Your task to perform on an android device: delete browsing data in the chrome app Image 0: 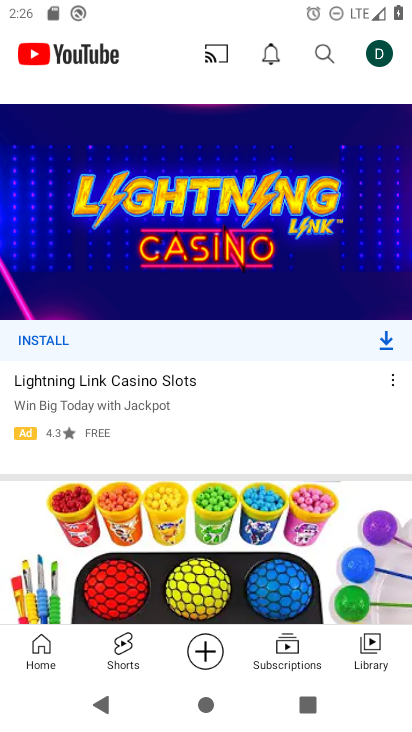
Step 0: press home button
Your task to perform on an android device: delete browsing data in the chrome app Image 1: 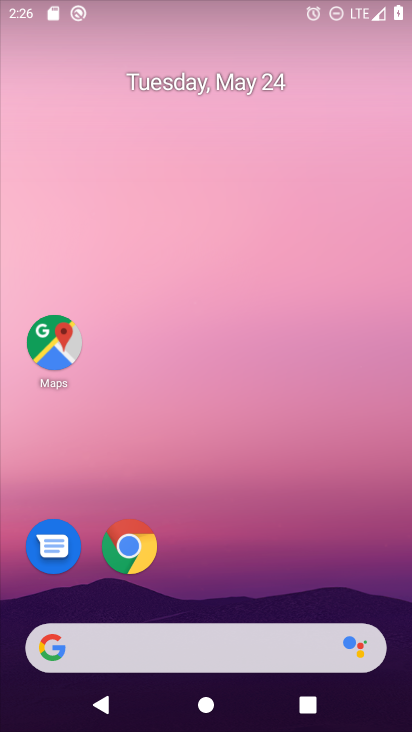
Step 1: drag from (342, 630) to (328, 14)
Your task to perform on an android device: delete browsing data in the chrome app Image 2: 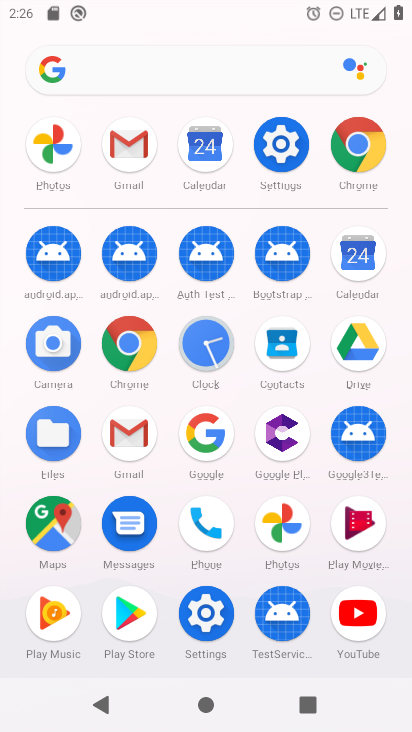
Step 2: click (126, 346)
Your task to perform on an android device: delete browsing data in the chrome app Image 3: 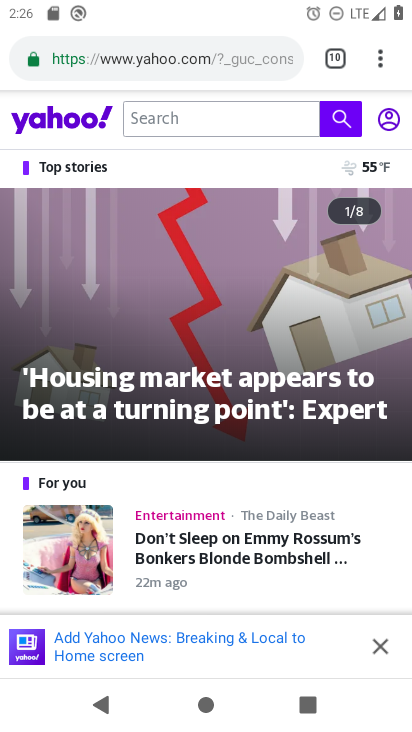
Step 3: click (379, 55)
Your task to perform on an android device: delete browsing data in the chrome app Image 4: 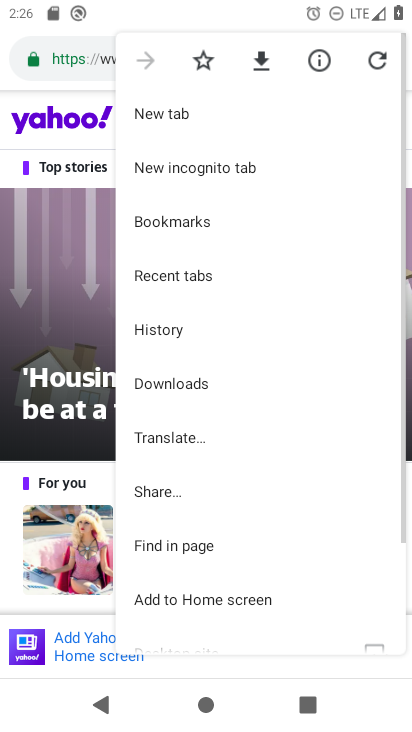
Step 4: click (177, 335)
Your task to perform on an android device: delete browsing data in the chrome app Image 5: 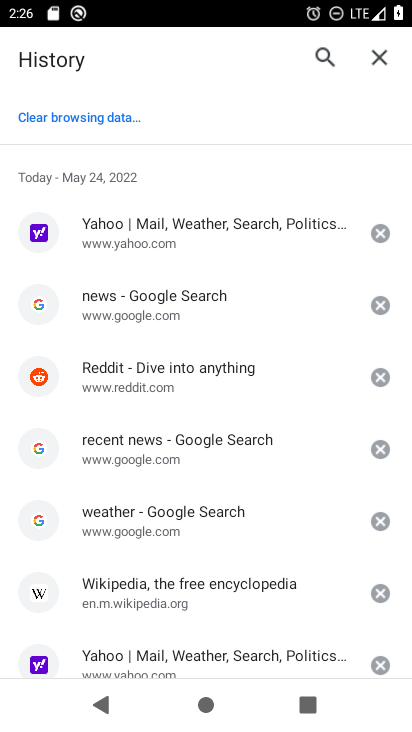
Step 5: click (104, 112)
Your task to perform on an android device: delete browsing data in the chrome app Image 6: 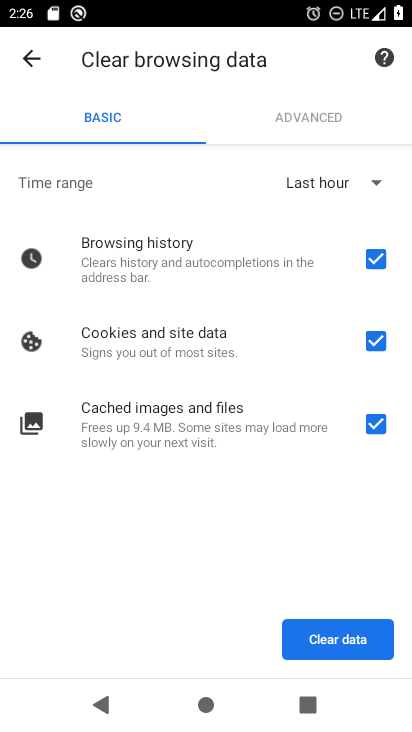
Step 6: click (342, 629)
Your task to perform on an android device: delete browsing data in the chrome app Image 7: 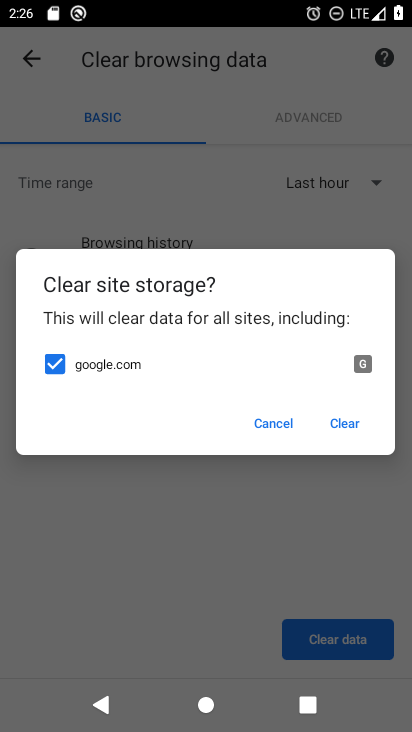
Step 7: click (344, 418)
Your task to perform on an android device: delete browsing data in the chrome app Image 8: 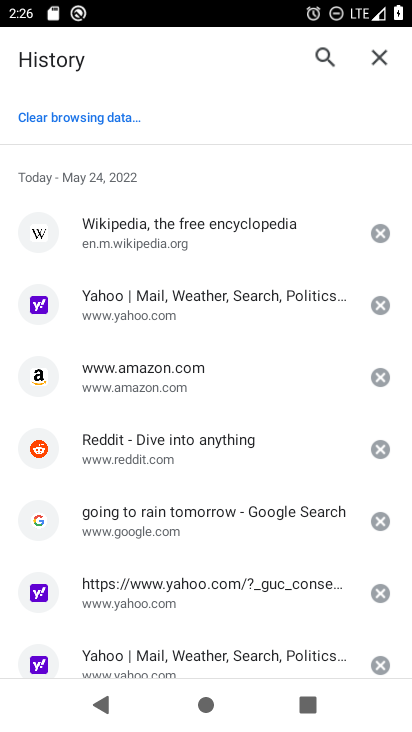
Step 8: click (381, 231)
Your task to perform on an android device: delete browsing data in the chrome app Image 9: 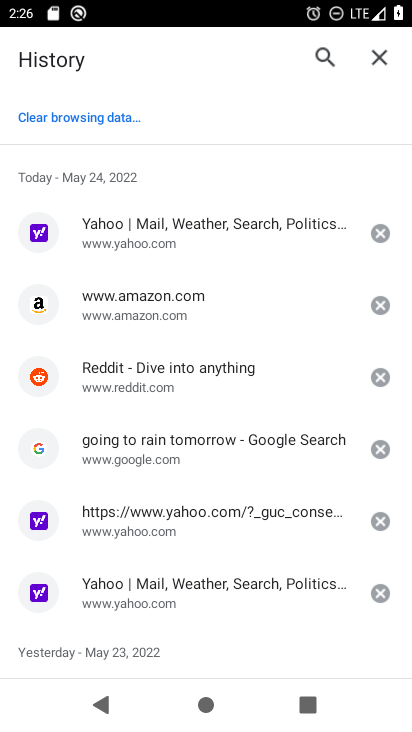
Step 9: click (373, 220)
Your task to perform on an android device: delete browsing data in the chrome app Image 10: 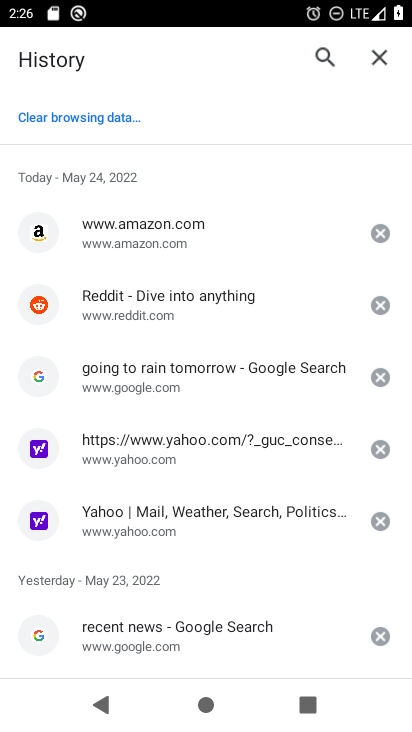
Step 10: click (386, 235)
Your task to perform on an android device: delete browsing data in the chrome app Image 11: 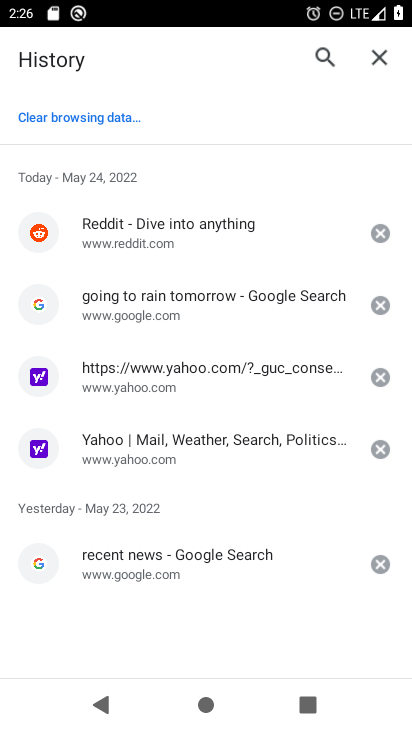
Step 11: click (379, 226)
Your task to perform on an android device: delete browsing data in the chrome app Image 12: 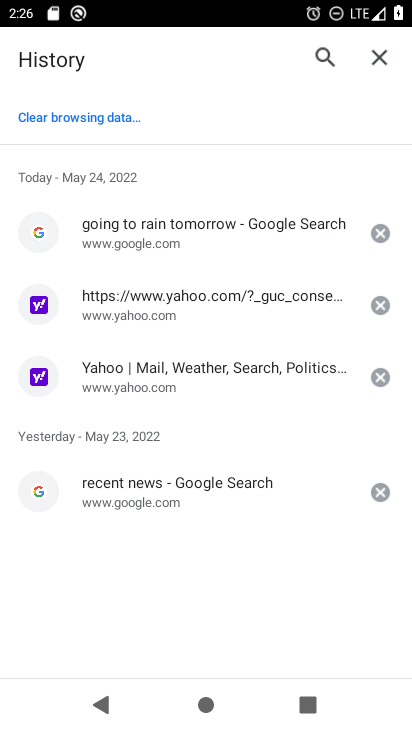
Step 12: click (385, 232)
Your task to perform on an android device: delete browsing data in the chrome app Image 13: 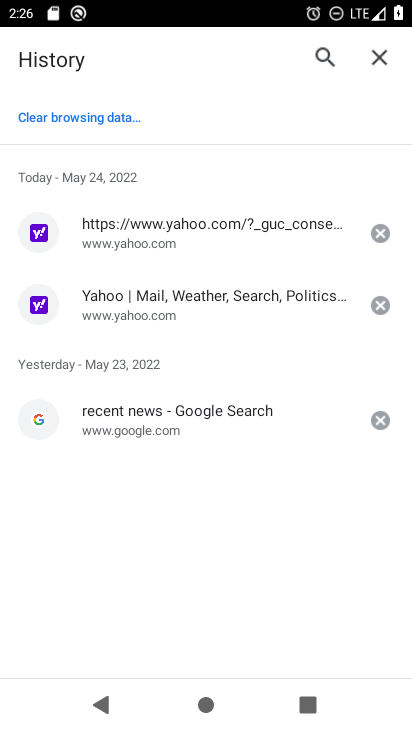
Step 13: click (375, 232)
Your task to perform on an android device: delete browsing data in the chrome app Image 14: 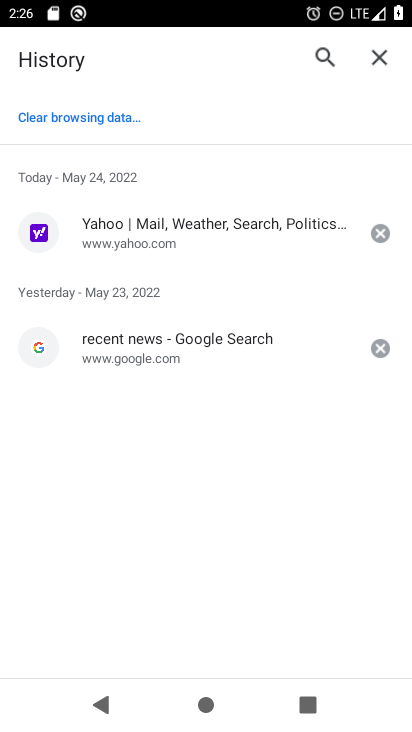
Step 14: click (376, 235)
Your task to perform on an android device: delete browsing data in the chrome app Image 15: 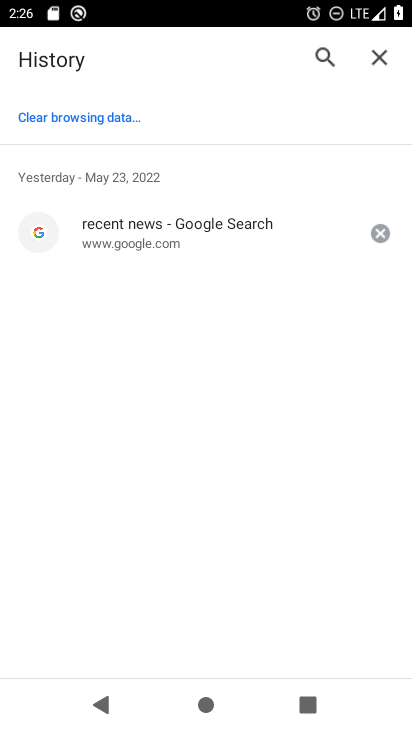
Step 15: click (378, 233)
Your task to perform on an android device: delete browsing data in the chrome app Image 16: 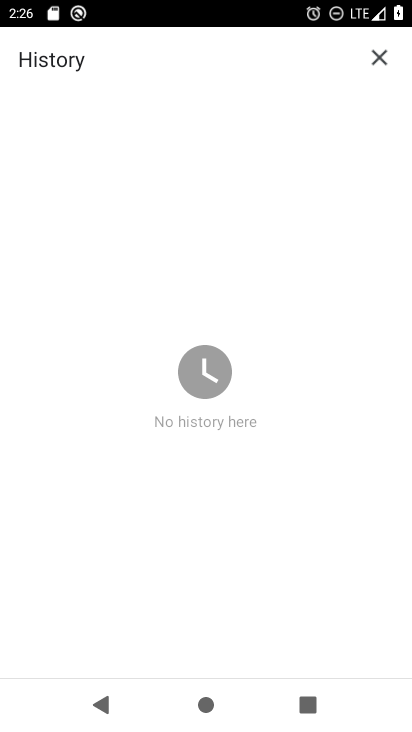
Step 16: task complete